Your task to perform on an android device: toggle data saver in the chrome app Image 0: 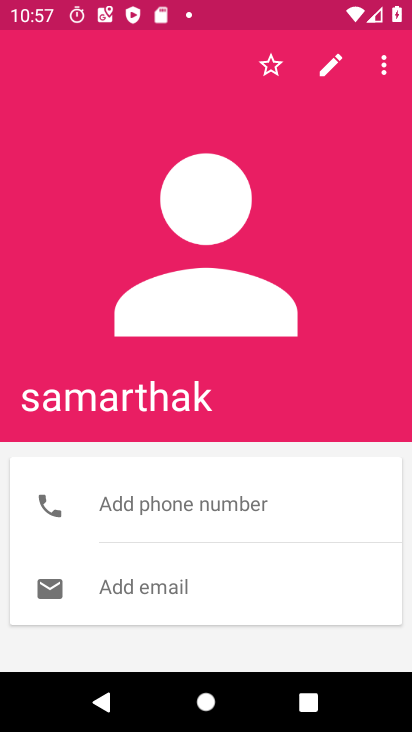
Step 0: press home button
Your task to perform on an android device: toggle data saver in the chrome app Image 1: 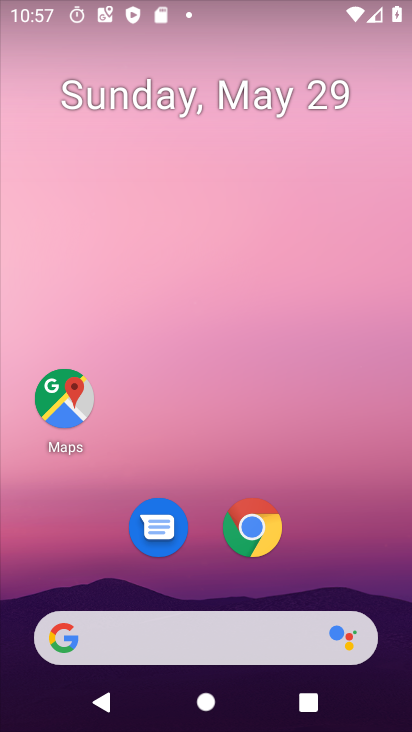
Step 1: click (256, 526)
Your task to perform on an android device: toggle data saver in the chrome app Image 2: 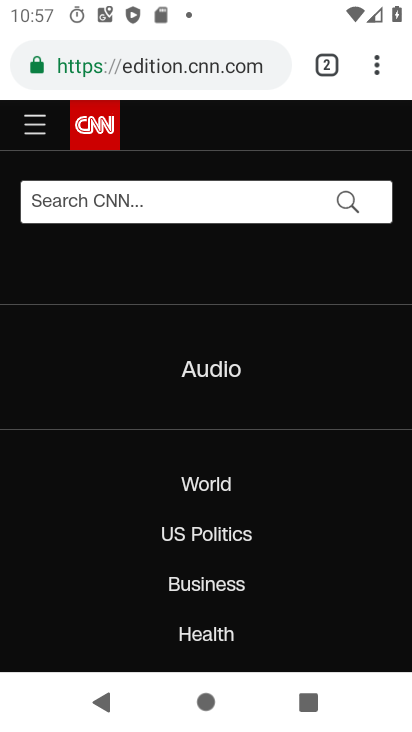
Step 2: drag from (375, 51) to (213, 579)
Your task to perform on an android device: toggle data saver in the chrome app Image 3: 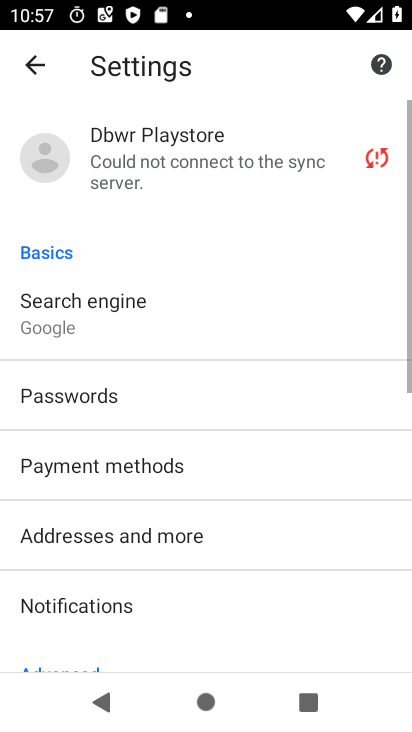
Step 3: drag from (217, 563) to (341, 118)
Your task to perform on an android device: toggle data saver in the chrome app Image 4: 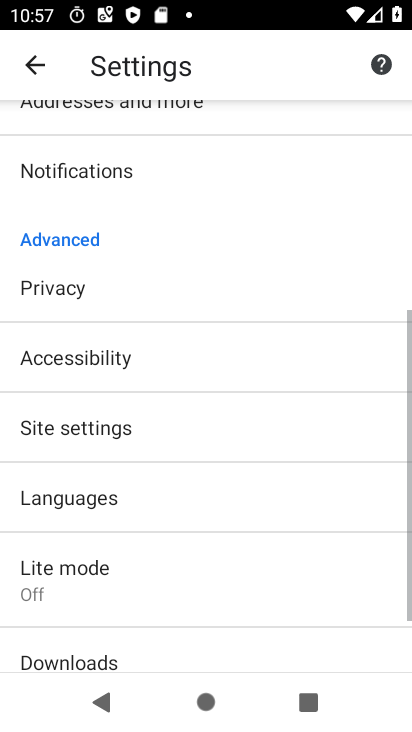
Step 4: click (116, 599)
Your task to perform on an android device: toggle data saver in the chrome app Image 5: 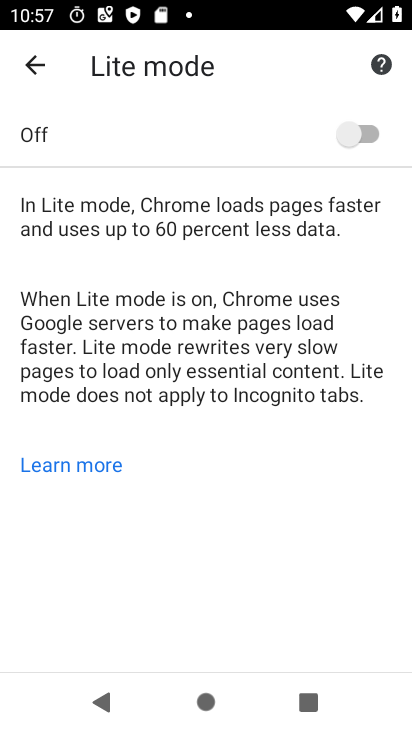
Step 5: click (341, 122)
Your task to perform on an android device: toggle data saver in the chrome app Image 6: 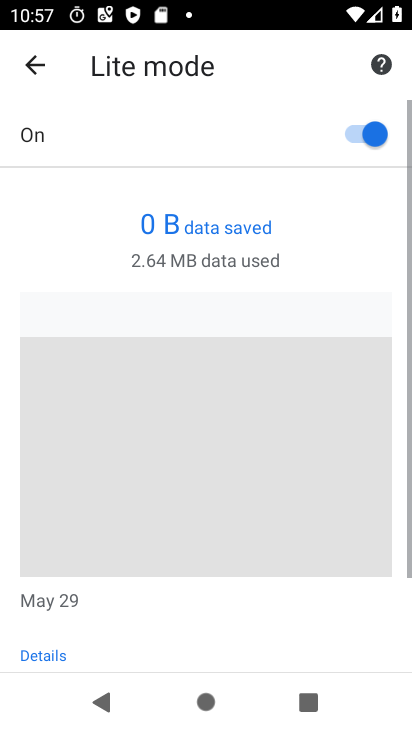
Step 6: task complete